Your task to perform on an android device: check data usage Image 0: 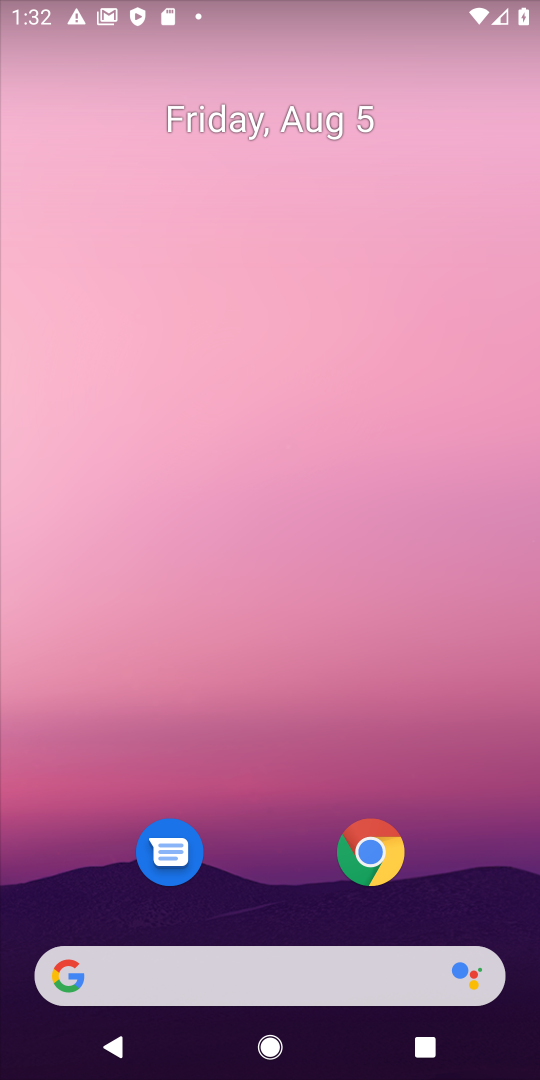
Step 0: drag from (254, 842) to (271, 152)
Your task to perform on an android device: check data usage Image 1: 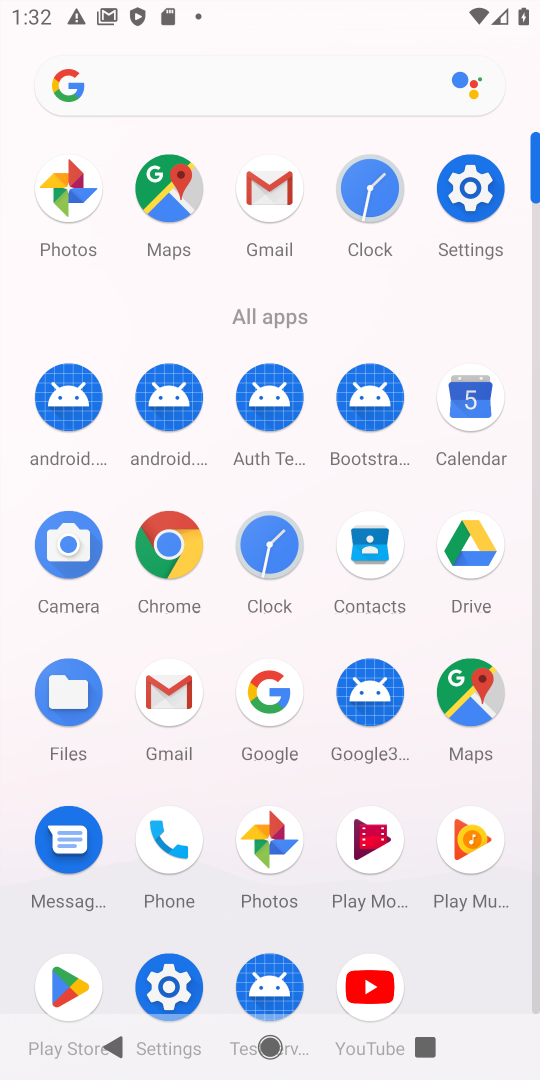
Step 1: click (469, 177)
Your task to perform on an android device: check data usage Image 2: 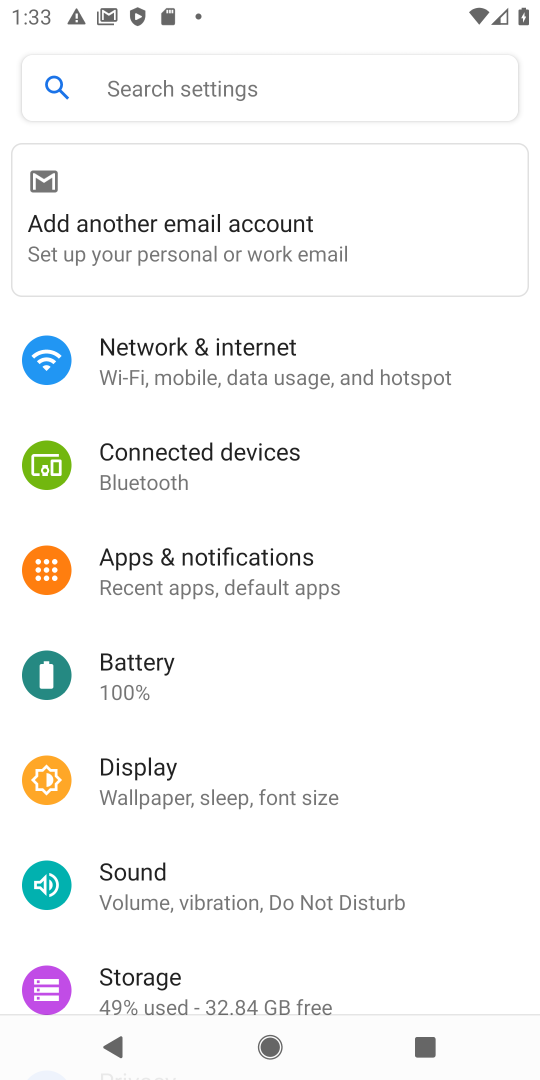
Step 2: click (189, 337)
Your task to perform on an android device: check data usage Image 3: 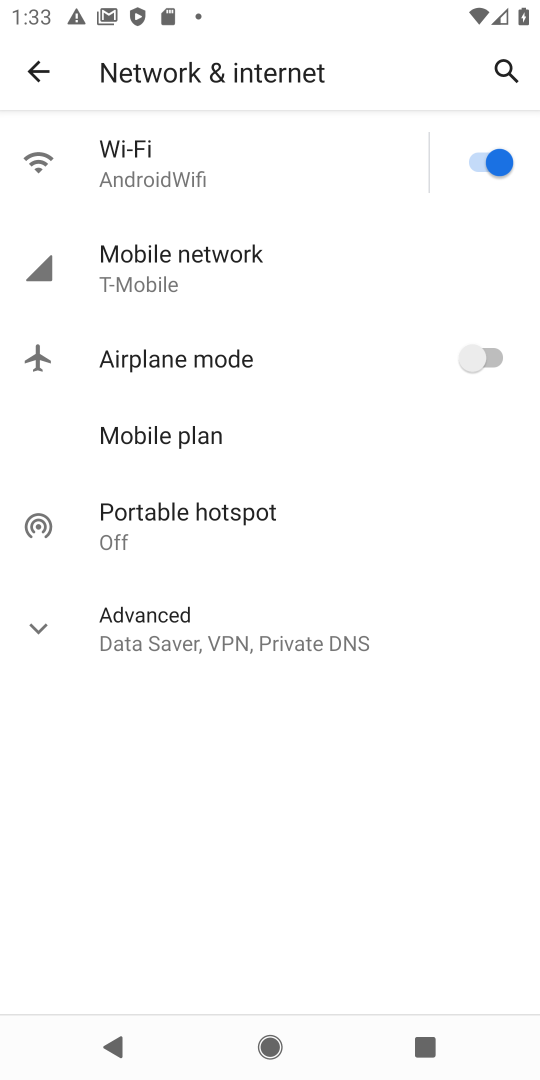
Step 3: click (186, 247)
Your task to perform on an android device: check data usage Image 4: 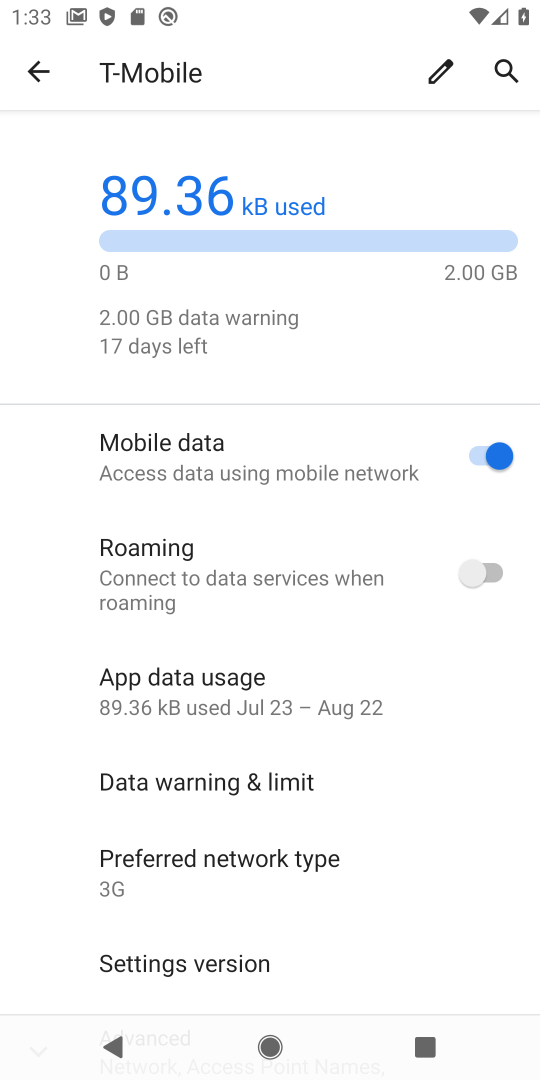
Step 4: task complete